Your task to perform on an android device: toggle pop-ups in chrome Image 0: 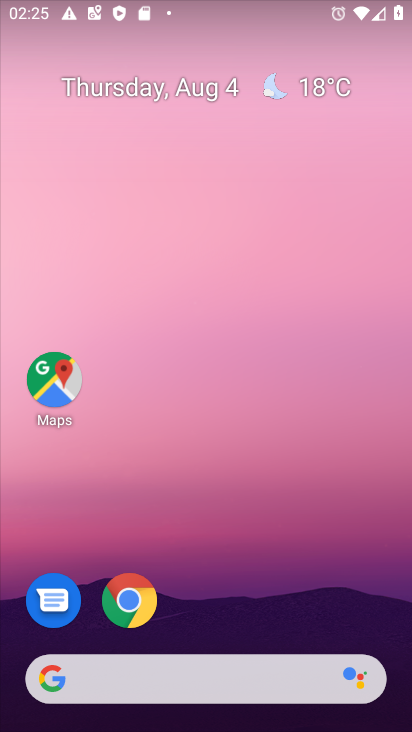
Step 0: click (134, 605)
Your task to perform on an android device: toggle pop-ups in chrome Image 1: 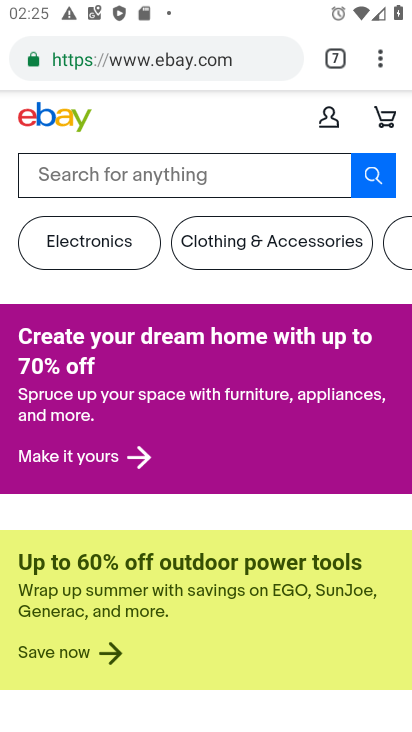
Step 1: drag from (380, 56) to (266, 623)
Your task to perform on an android device: toggle pop-ups in chrome Image 2: 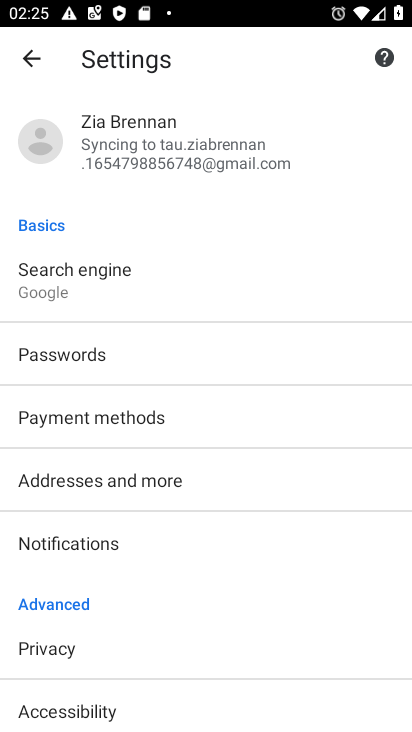
Step 2: drag from (280, 657) to (344, 228)
Your task to perform on an android device: toggle pop-ups in chrome Image 3: 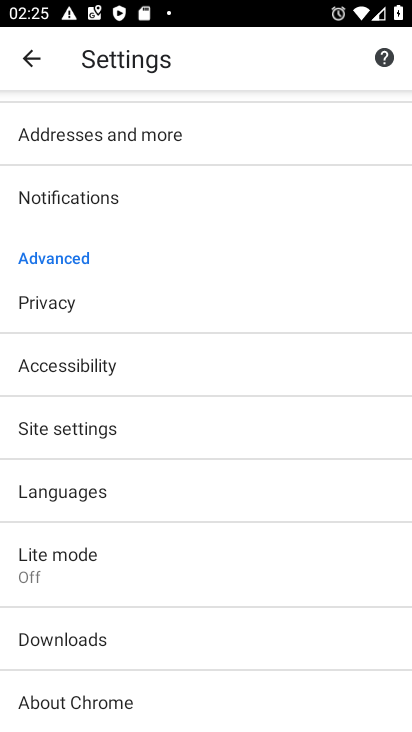
Step 3: click (115, 430)
Your task to perform on an android device: toggle pop-ups in chrome Image 4: 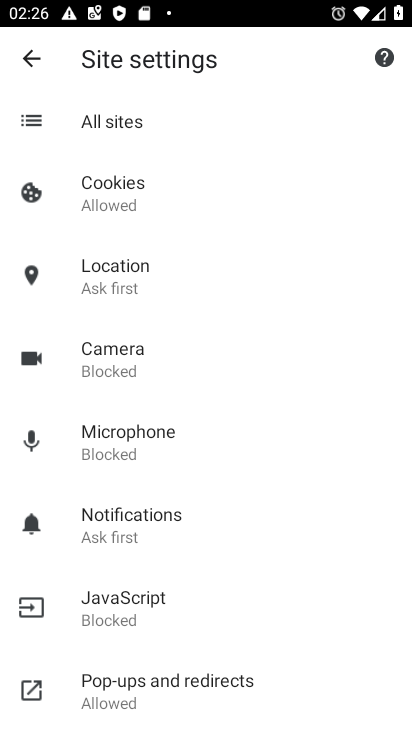
Step 4: click (142, 683)
Your task to perform on an android device: toggle pop-ups in chrome Image 5: 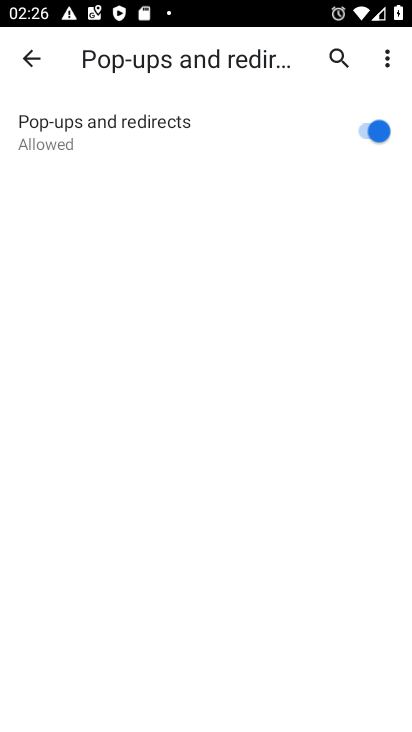
Step 5: click (365, 127)
Your task to perform on an android device: toggle pop-ups in chrome Image 6: 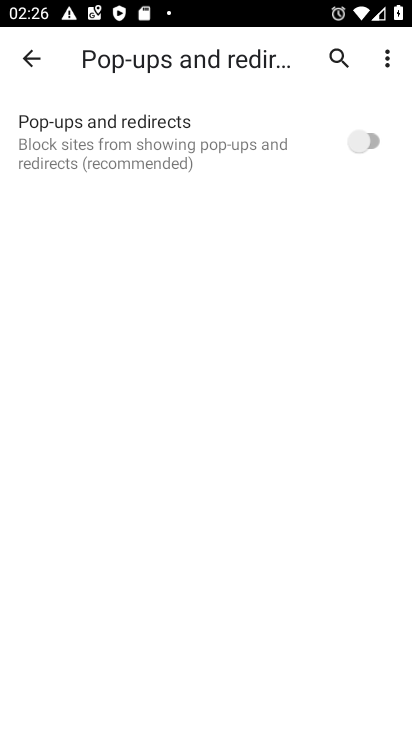
Step 6: task complete